Your task to perform on an android device: Search for sushi restaurants on Maps Image 0: 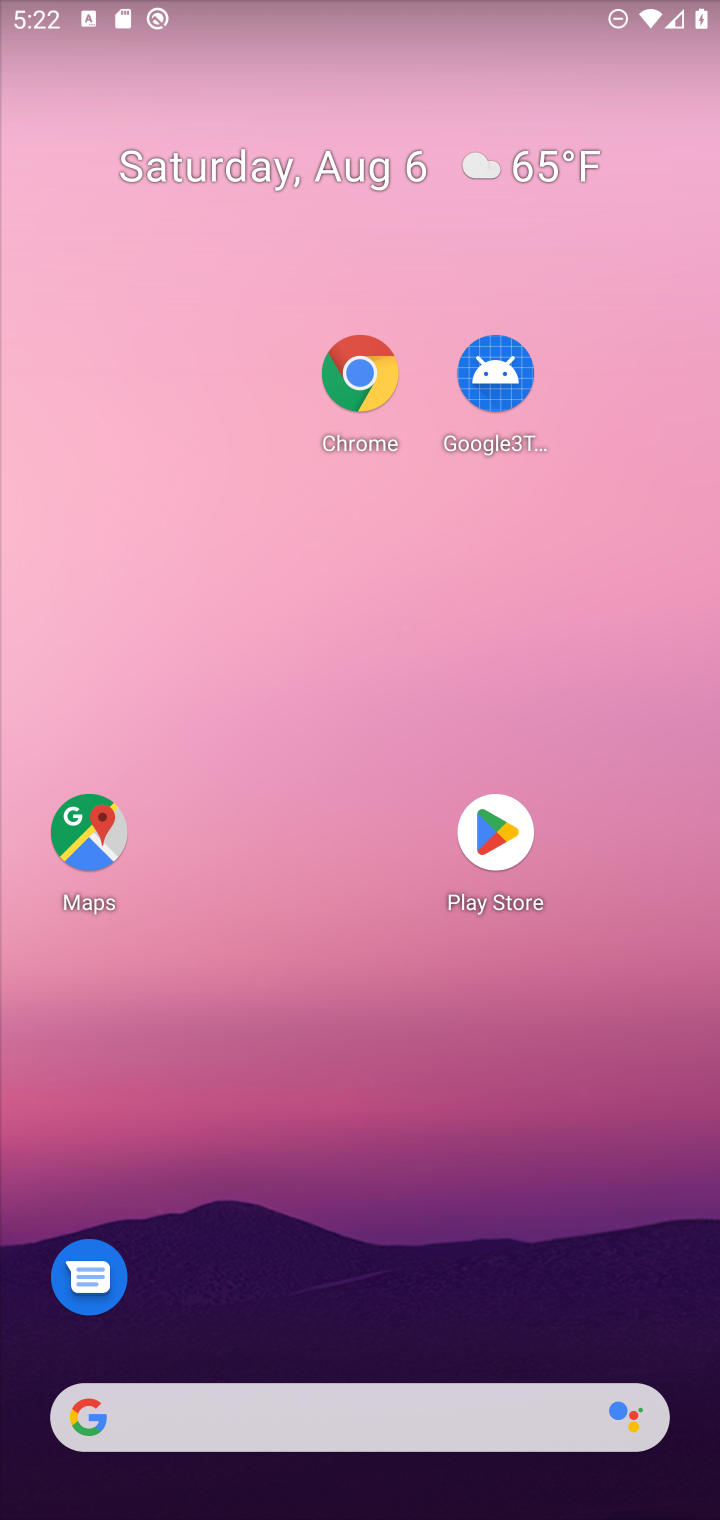
Step 0: drag from (428, 1418) to (486, 46)
Your task to perform on an android device: Search for sushi restaurants on Maps Image 1: 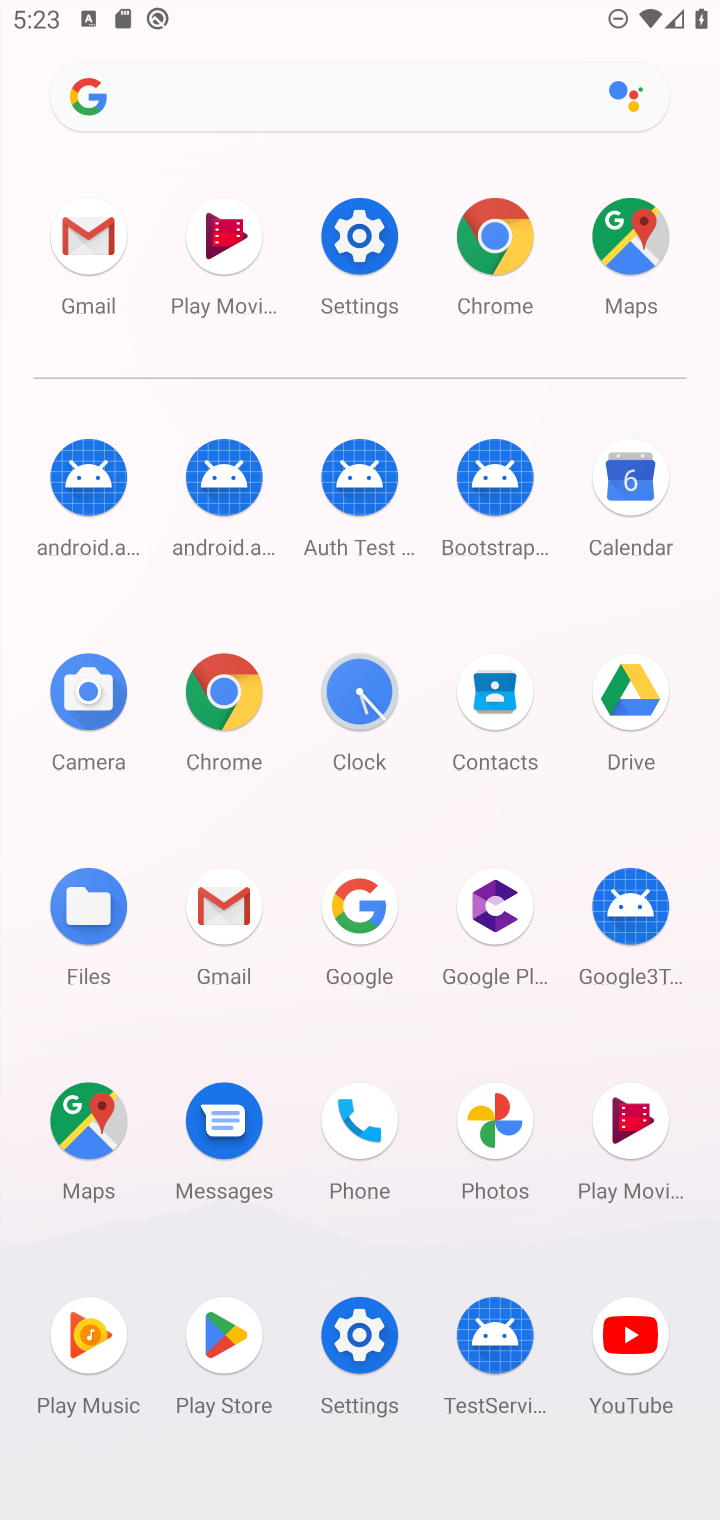
Step 1: click (82, 1149)
Your task to perform on an android device: Search for sushi restaurants on Maps Image 2: 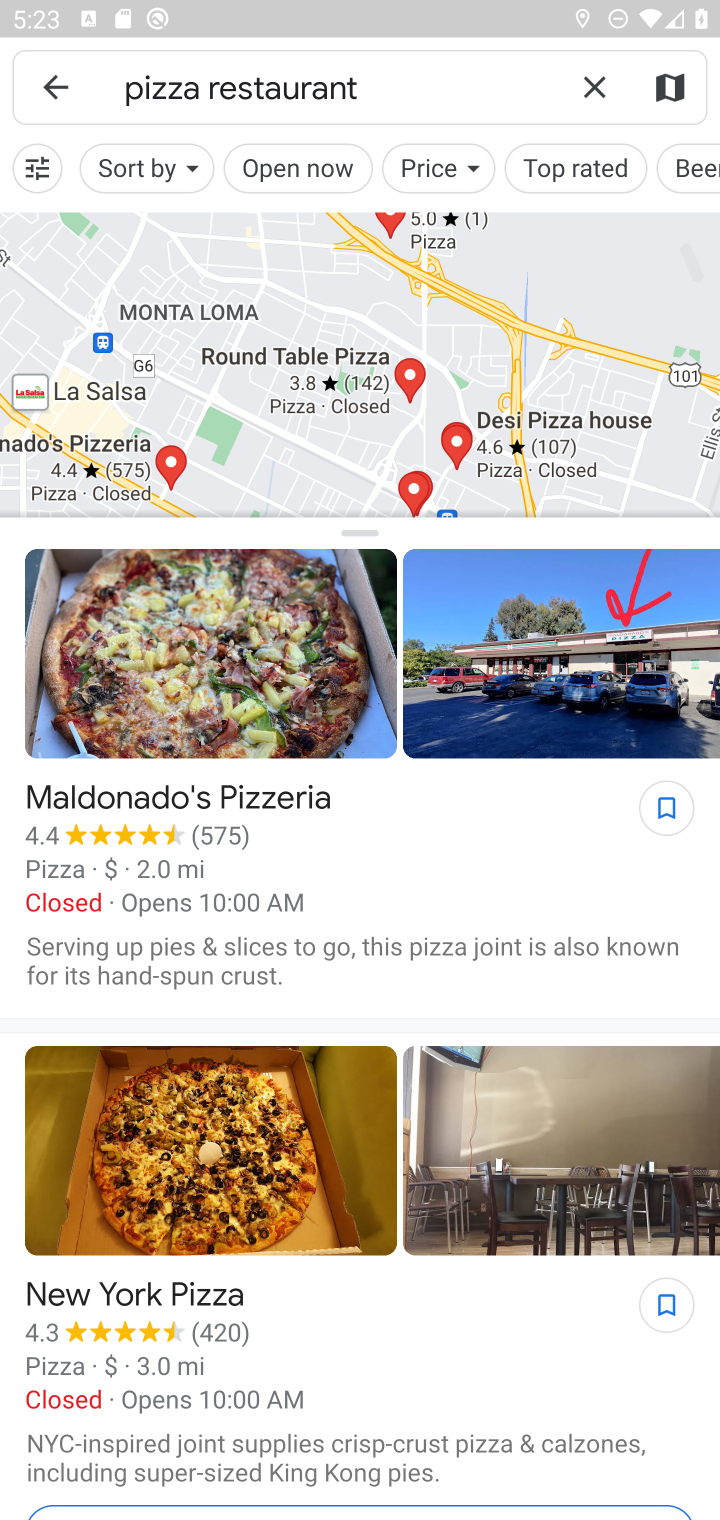
Step 2: click (595, 83)
Your task to perform on an android device: Search for sushi restaurants on Maps Image 3: 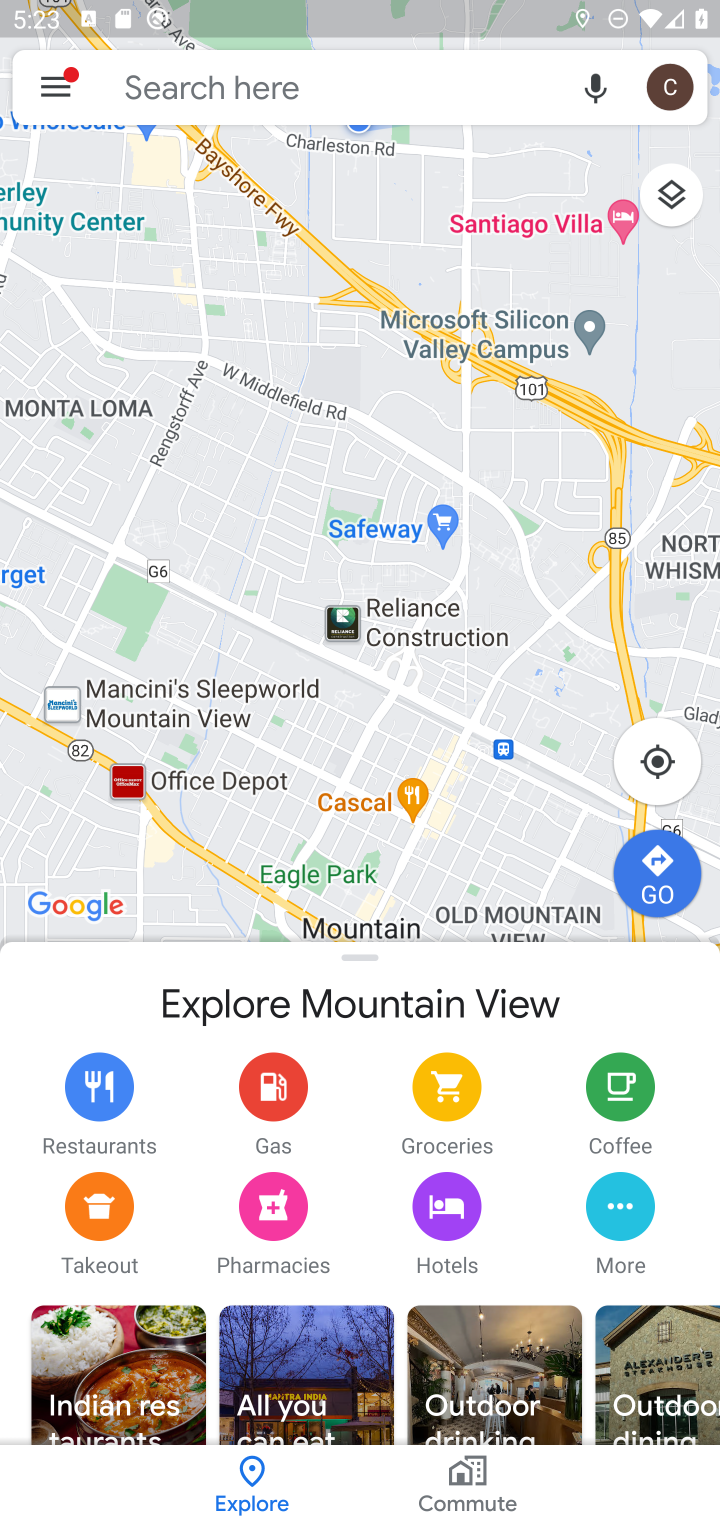
Step 3: click (405, 86)
Your task to perform on an android device: Search for sushi restaurants on Maps Image 4: 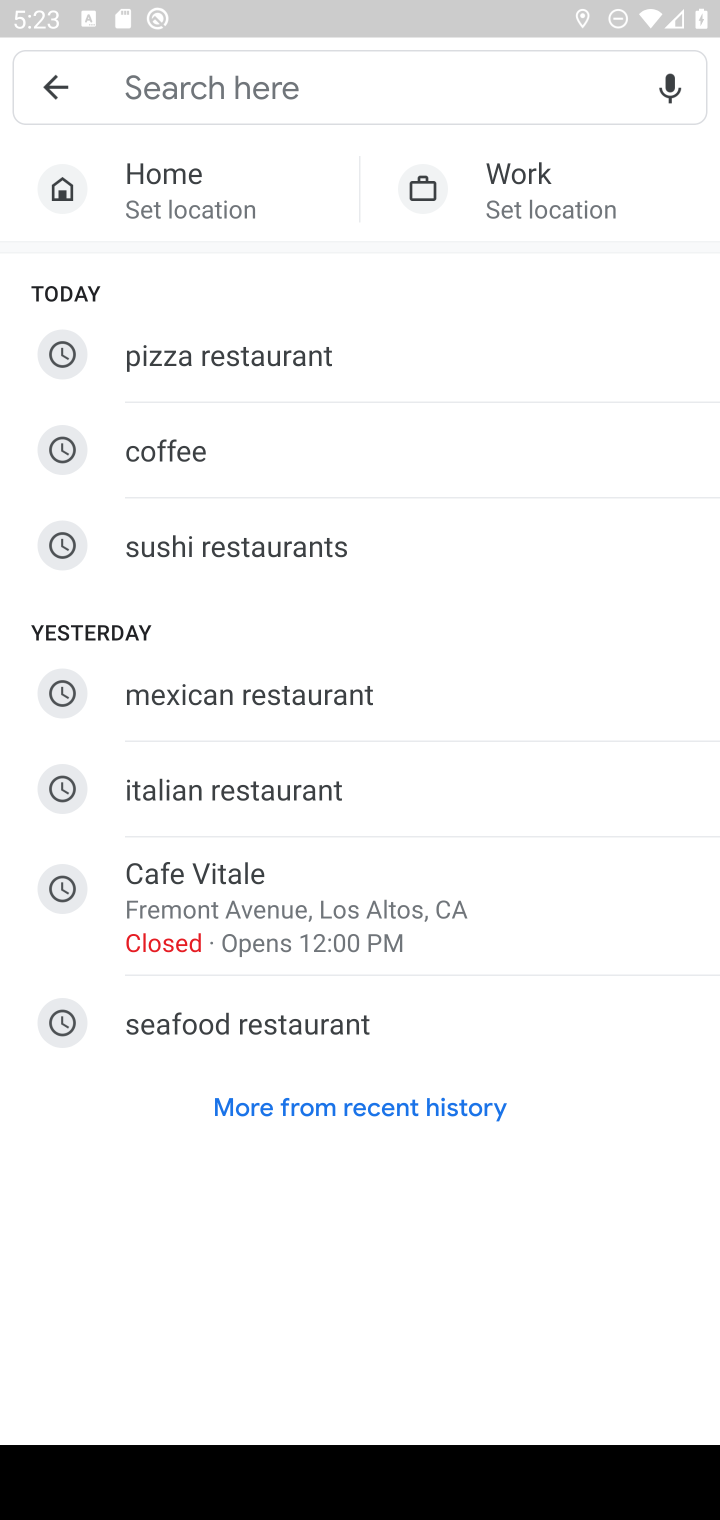
Step 4: click (221, 558)
Your task to perform on an android device: Search for sushi restaurants on Maps Image 5: 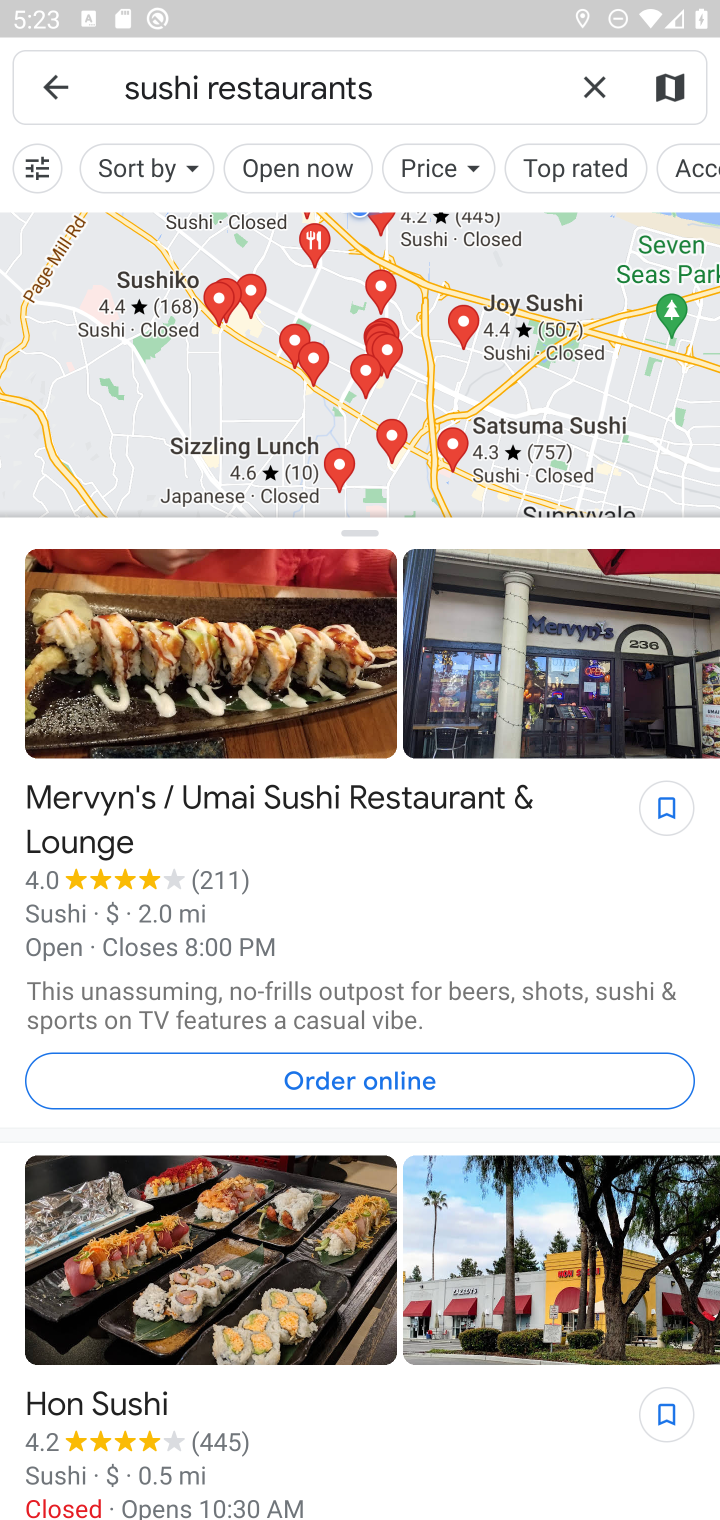
Step 5: task complete